Your task to perform on an android device: all mails in gmail Image 0: 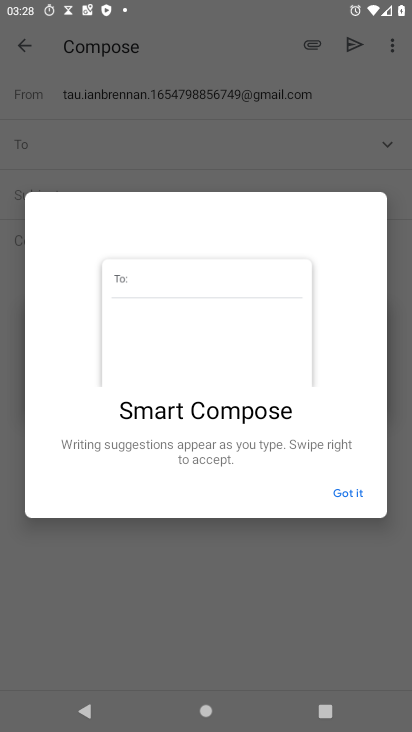
Step 0: press home button
Your task to perform on an android device: all mails in gmail Image 1: 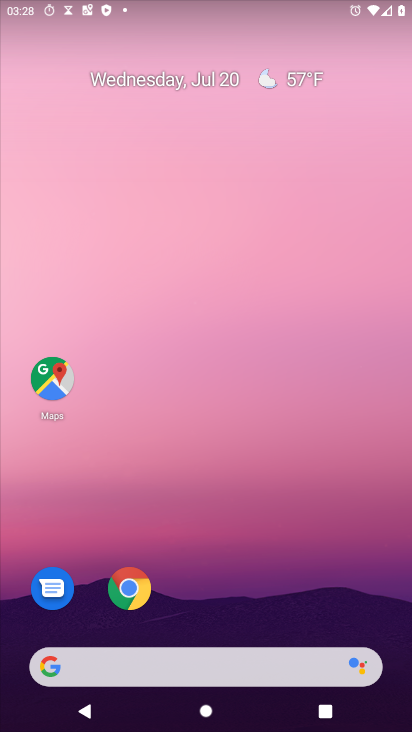
Step 1: drag from (210, 518) to (96, 12)
Your task to perform on an android device: all mails in gmail Image 2: 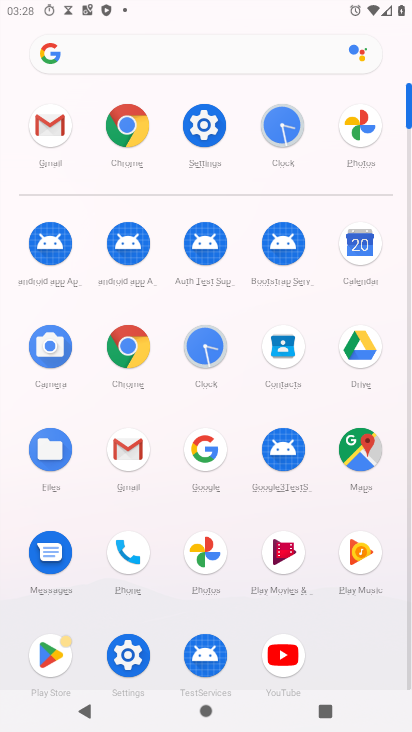
Step 2: click (135, 449)
Your task to perform on an android device: all mails in gmail Image 3: 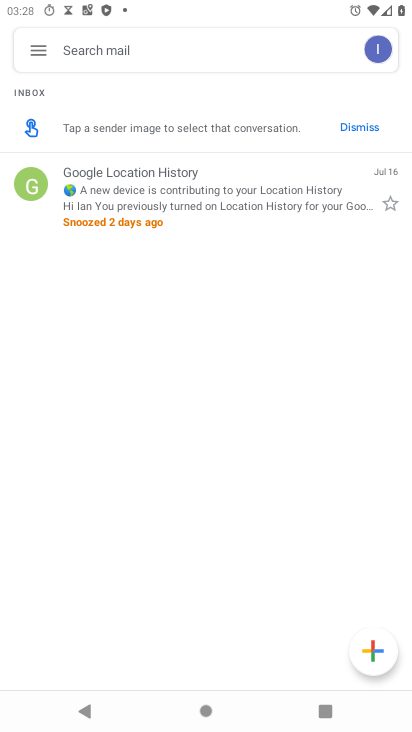
Step 3: click (32, 46)
Your task to perform on an android device: all mails in gmail Image 4: 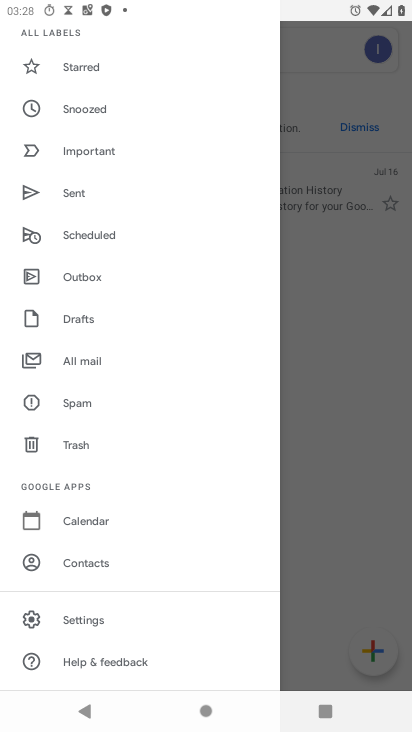
Step 4: click (104, 363)
Your task to perform on an android device: all mails in gmail Image 5: 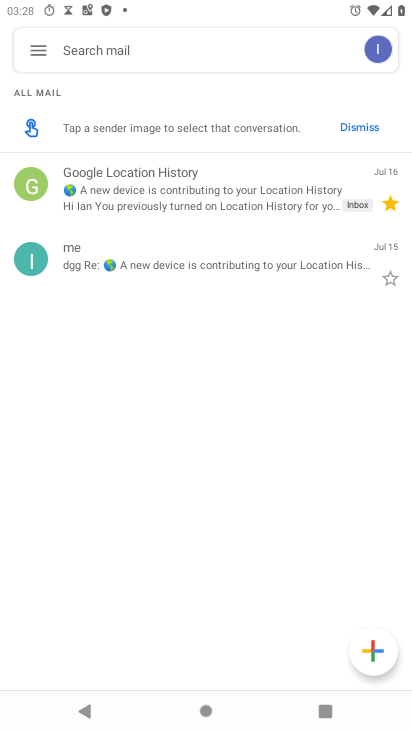
Step 5: task complete